Your task to perform on an android device: Do I have any events tomorrow? Image 0: 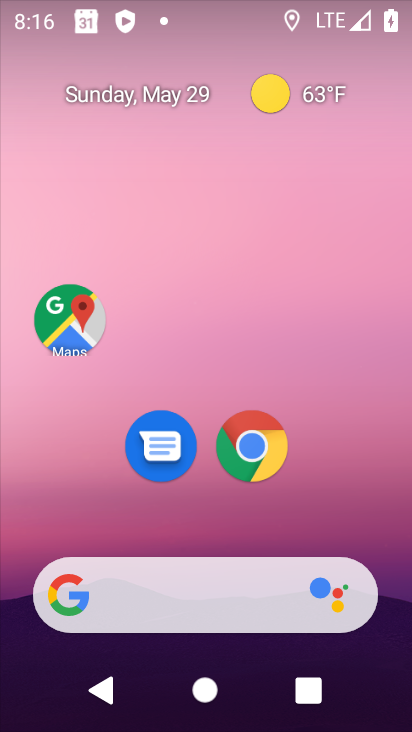
Step 0: drag from (209, 534) to (203, 190)
Your task to perform on an android device: Do I have any events tomorrow? Image 1: 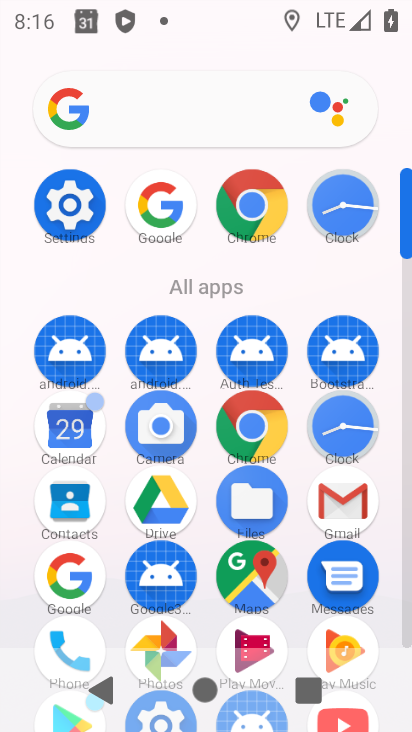
Step 1: click (70, 411)
Your task to perform on an android device: Do I have any events tomorrow? Image 2: 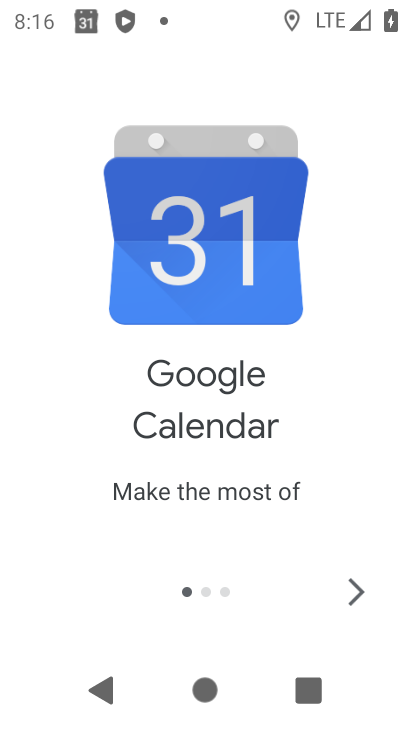
Step 2: click (341, 586)
Your task to perform on an android device: Do I have any events tomorrow? Image 3: 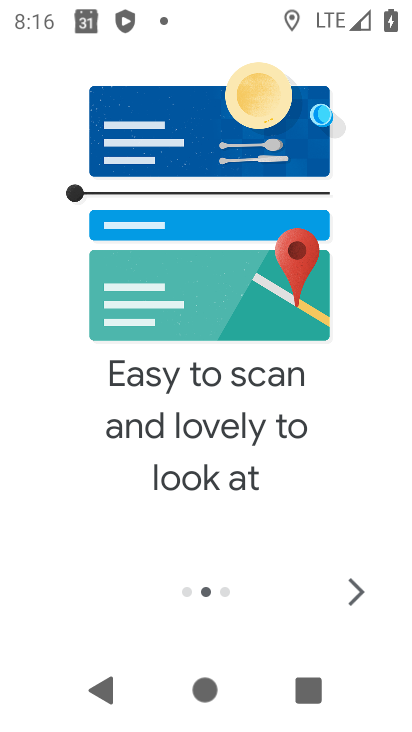
Step 3: click (344, 585)
Your task to perform on an android device: Do I have any events tomorrow? Image 4: 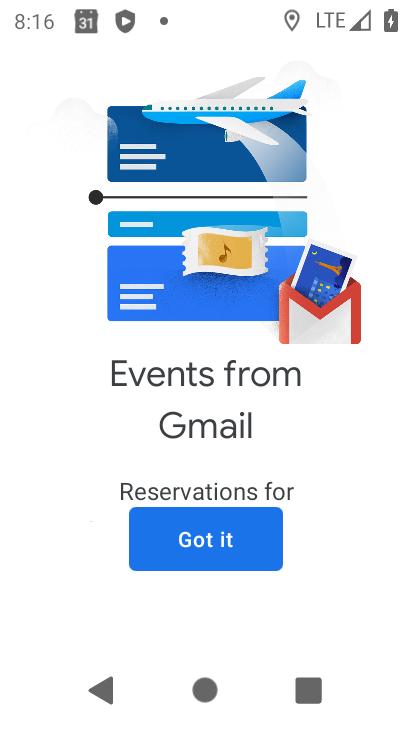
Step 4: click (251, 534)
Your task to perform on an android device: Do I have any events tomorrow? Image 5: 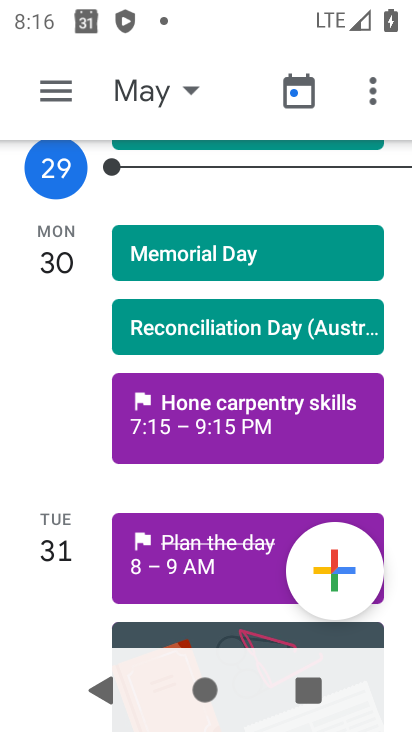
Step 5: click (201, 82)
Your task to perform on an android device: Do I have any events tomorrow? Image 6: 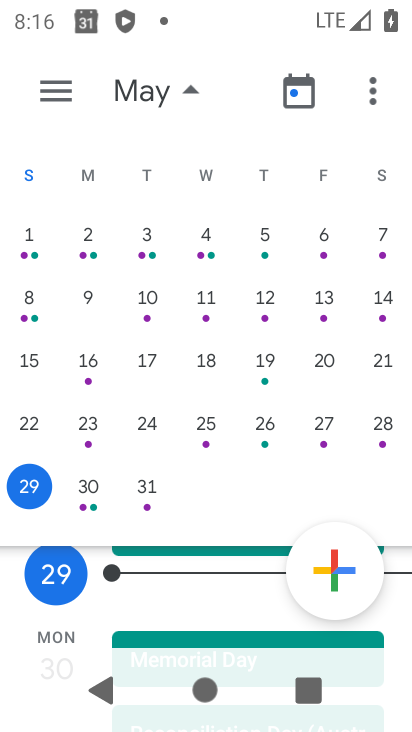
Step 6: click (92, 488)
Your task to perform on an android device: Do I have any events tomorrow? Image 7: 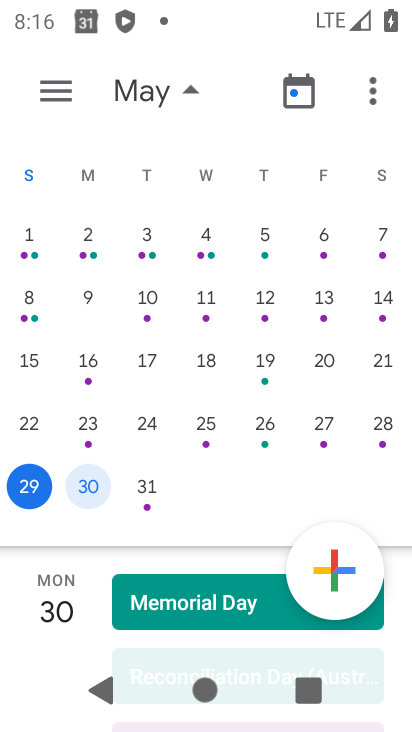
Step 7: task complete